Your task to perform on an android device: Open Wikipedia Image 0: 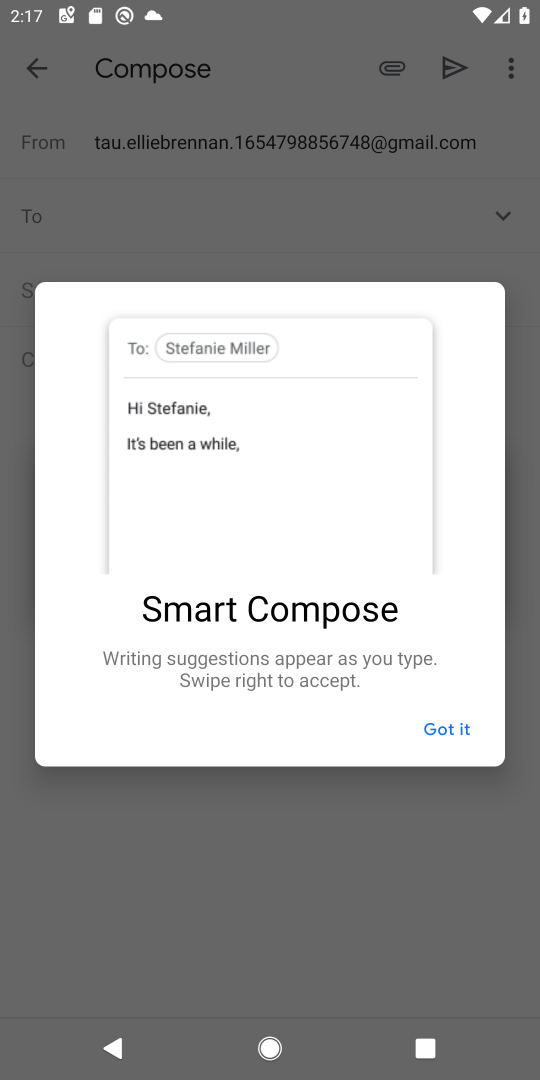
Step 0: press home button
Your task to perform on an android device: Open Wikipedia Image 1: 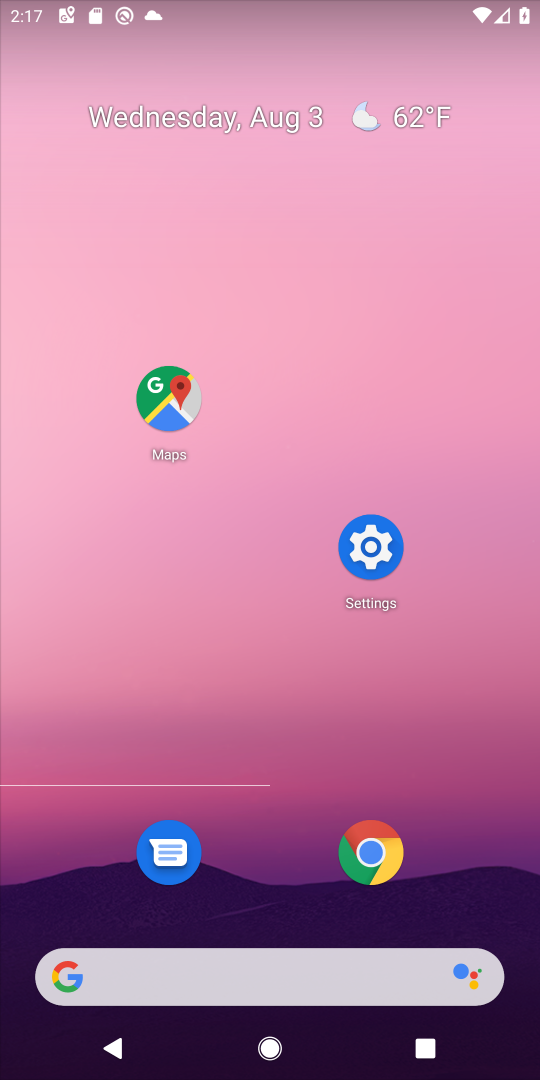
Step 1: click (361, 853)
Your task to perform on an android device: Open Wikipedia Image 2: 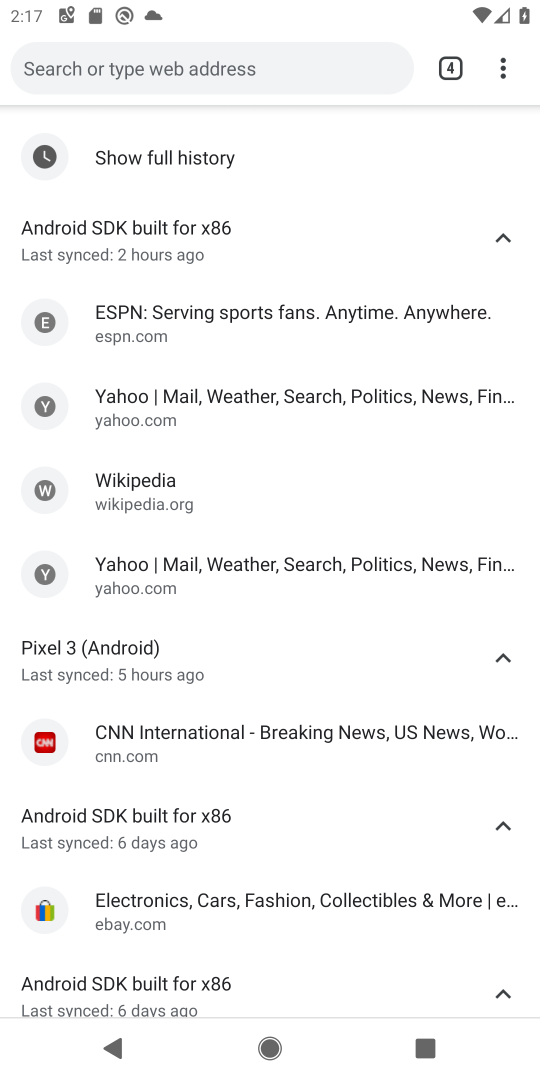
Step 2: drag from (508, 62) to (348, 204)
Your task to perform on an android device: Open Wikipedia Image 3: 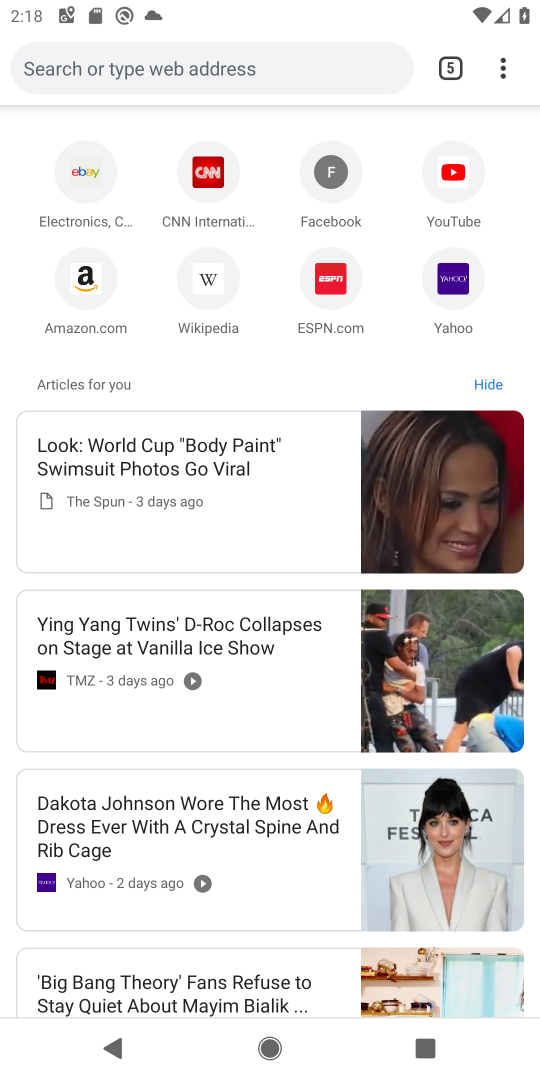
Step 3: click (209, 289)
Your task to perform on an android device: Open Wikipedia Image 4: 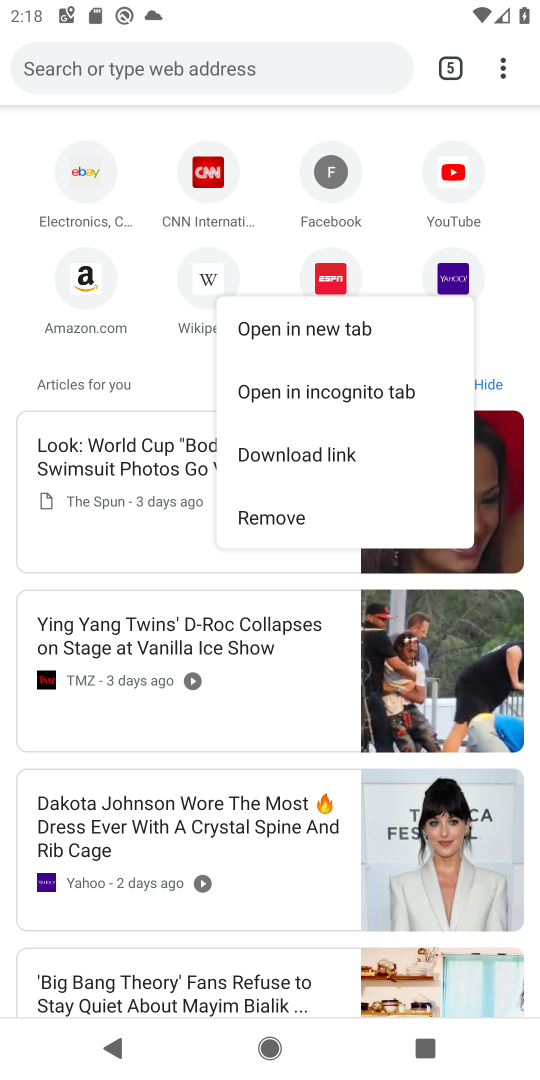
Step 4: click (203, 287)
Your task to perform on an android device: Open Wikipedia Image 5: 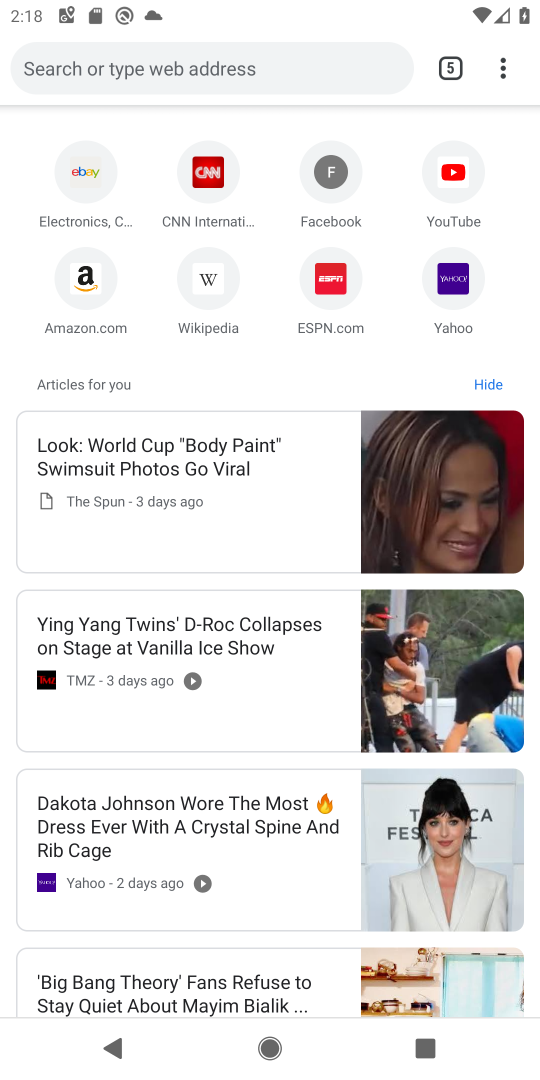
Step 5: click (209, 281)
Your task to perform on an android device: Open Wikipedia Image 6: 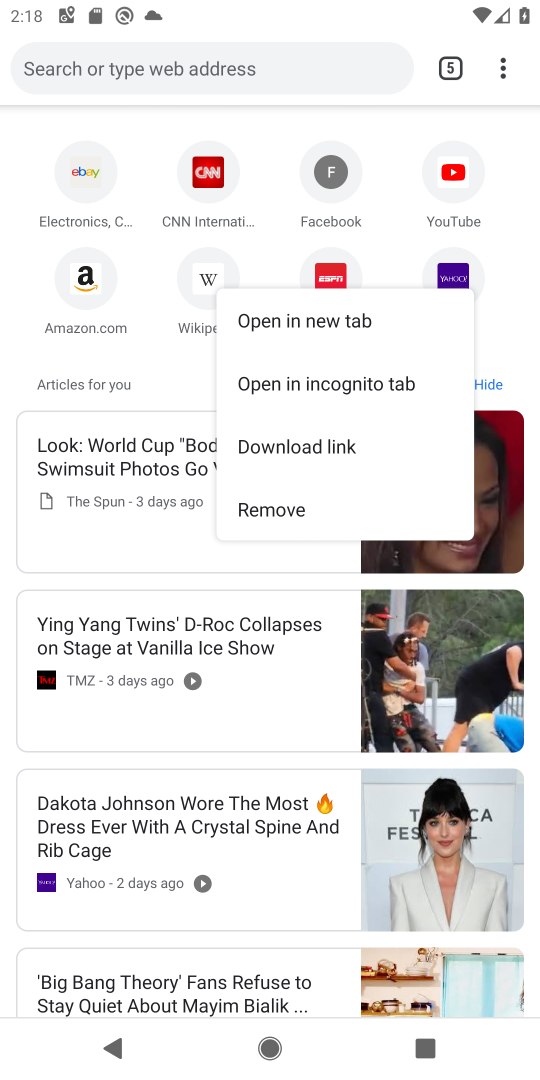
Step 6: click (201, 286)
Your task to perform on an android device: Open Wikipedia Image 7: 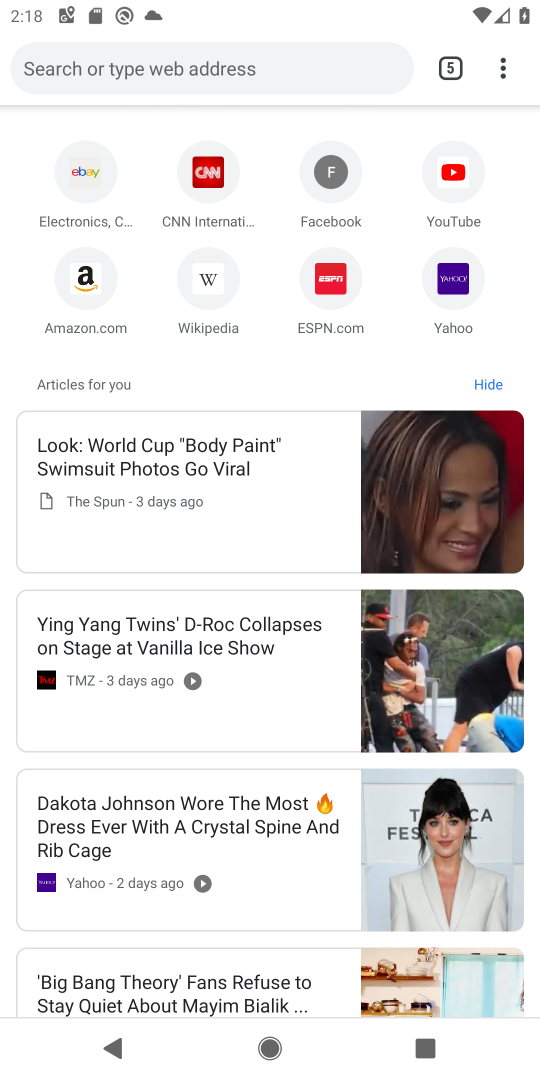
Step 7: click (215, 275)
Your task to perform on an android device: Open Wikipedia Image 8: 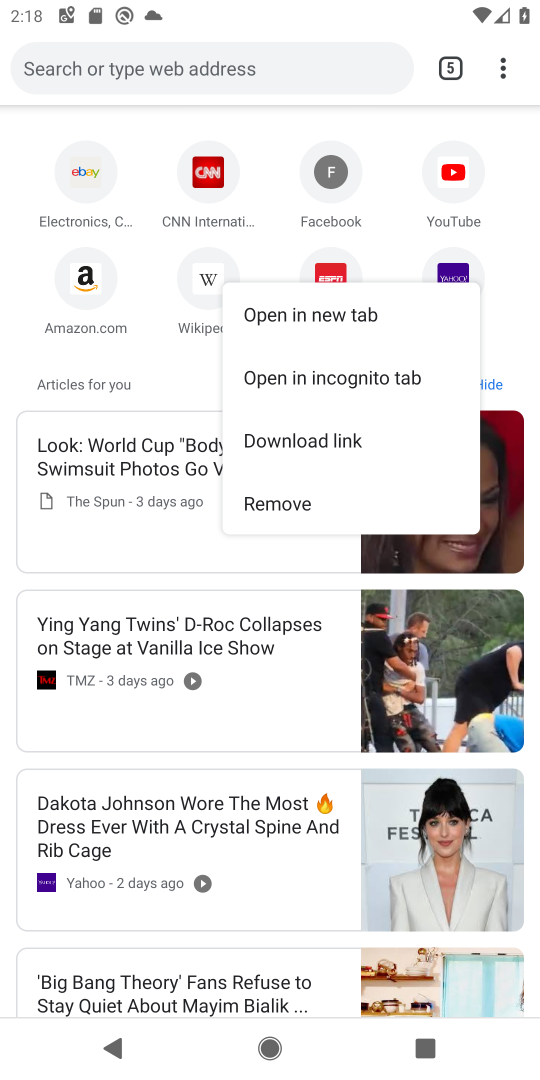
Step 8: click (202, 283)
Your task to perform on an android device: Open Wikipedia Image 9: 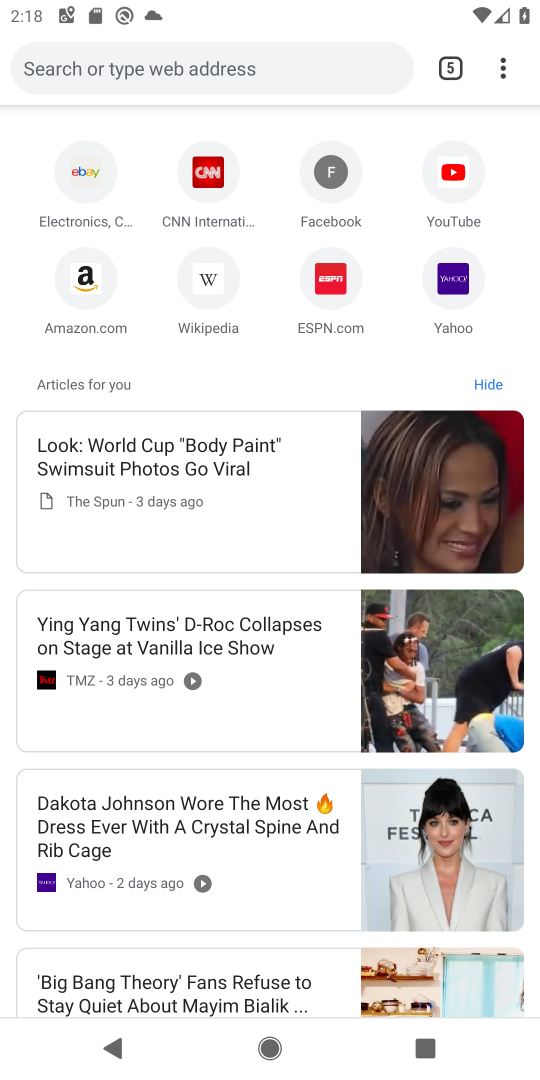
Step 9: click (202, 283)
Your task to perform on an android device: Open Wikipedia Image 10: 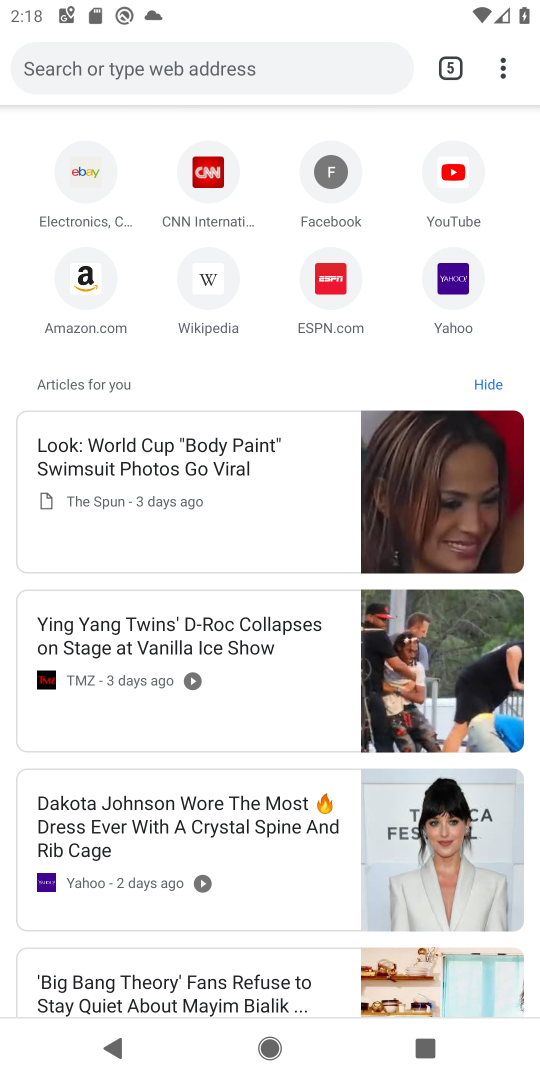
Step 10: click (202, 283)
Your task to perform on an android device: Open Wikipedia Image 11: 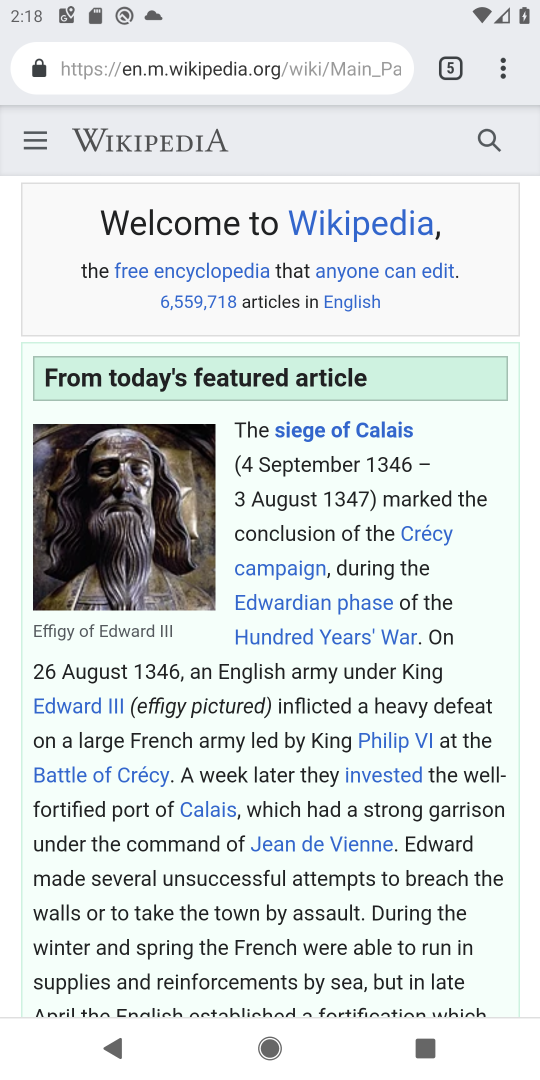
Step 11: task complete